Your task to perform on an android device: move an email to a new category in the gmail app Image 0: 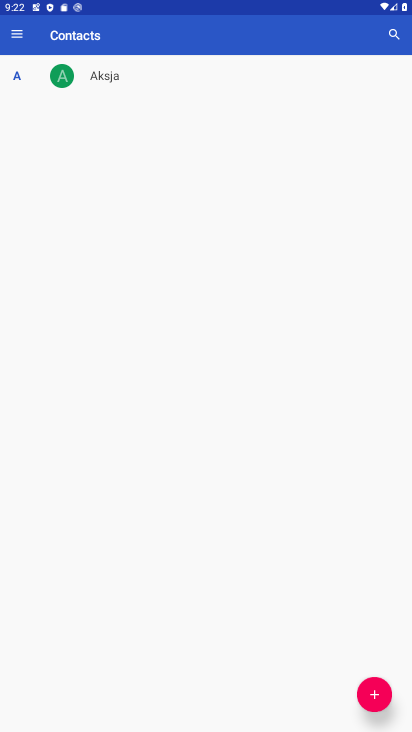
Step 0: press home button
Your task to perform on an android device: move an email to a new category in the gmail app Image 1: 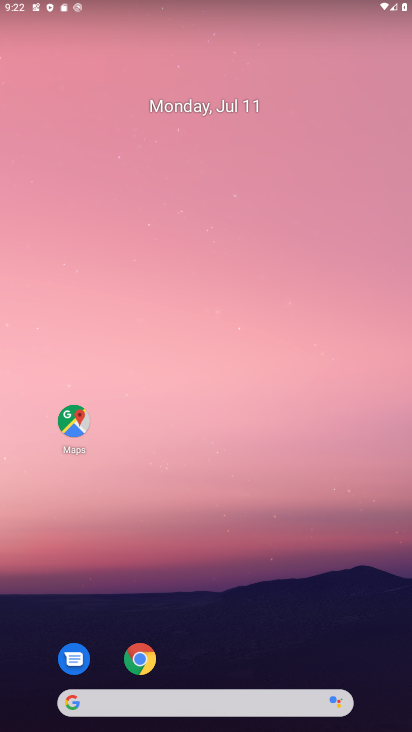
Step 1: drag from (218, 689) to (216, 63)
Your task to perform on an android device: move an email to a new category in the gmail app Image 2: 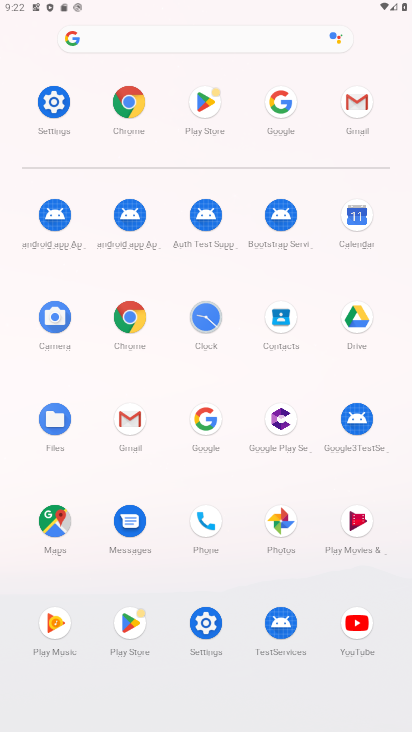
Step 2: click (128, 419)
Your task to perform on an android device: move an email to a new category in the gmail app Image 3: 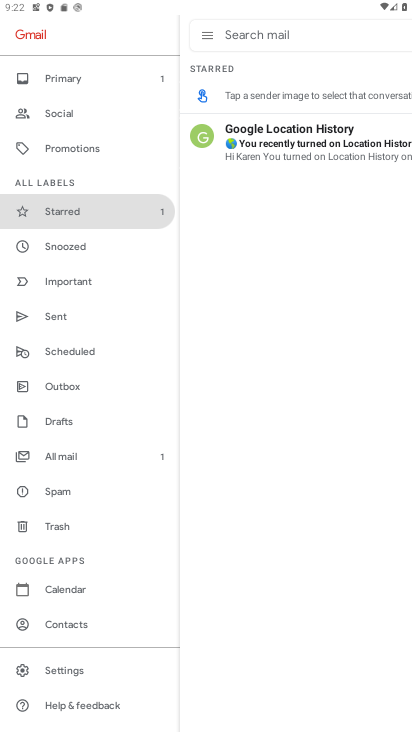
Step 3: click (61, 80)
Your task to perform on an android device: move an email to a new category in the gmail app Image 4: 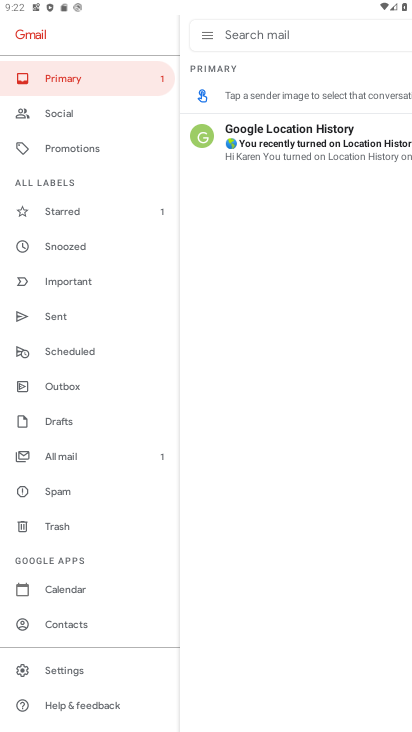
Step 4: click (280, 142)
Your task to perform on an android device: move an email to a new category in the gmail app Image 5: 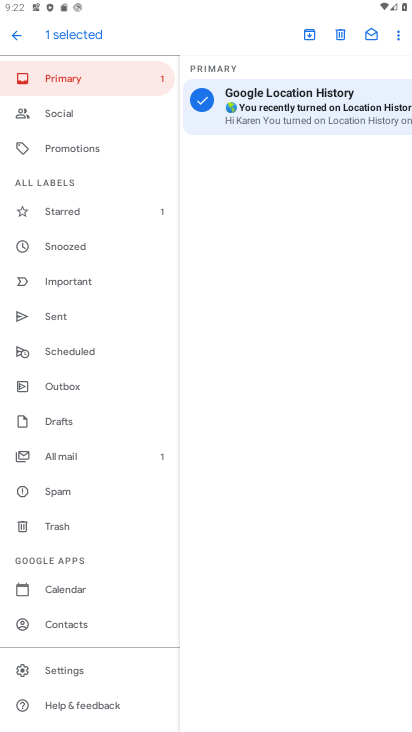
Step 5: click (398, 38)
Your task to perform on an android device: move an email to a new category in the gmail app Image 6: 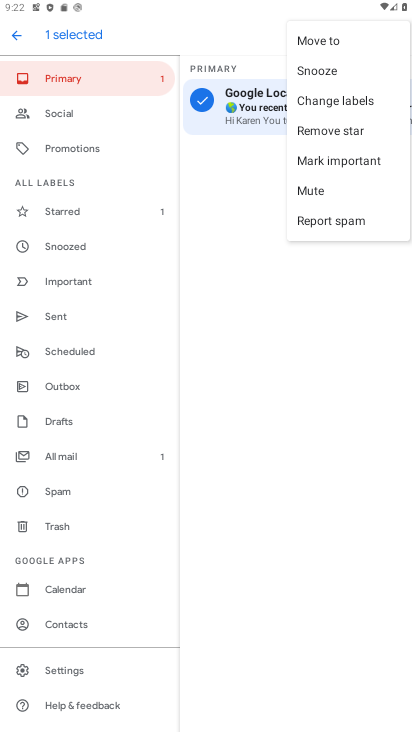
Step 6: click (326, 40)
Your task to perform on an android device: move an email to a new category in the gmail app Image 7: 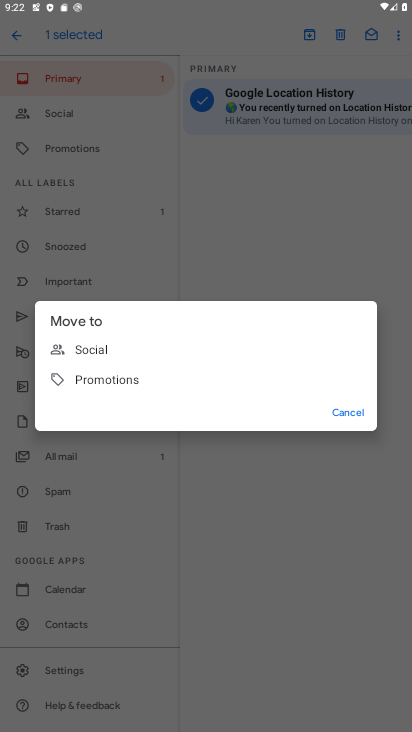
Step 7: click (80, 351)
Your task to perform on an android device: move an email to a new category in the gmail app Image 8: 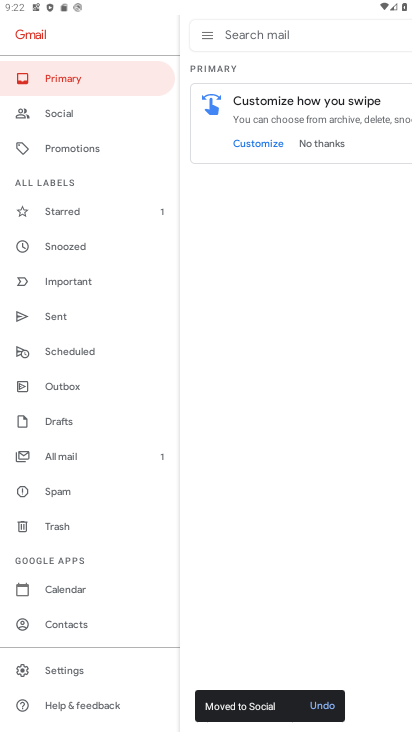
Step 8: task complete